Your task to perform on an android device: Go to Maps Image 0: 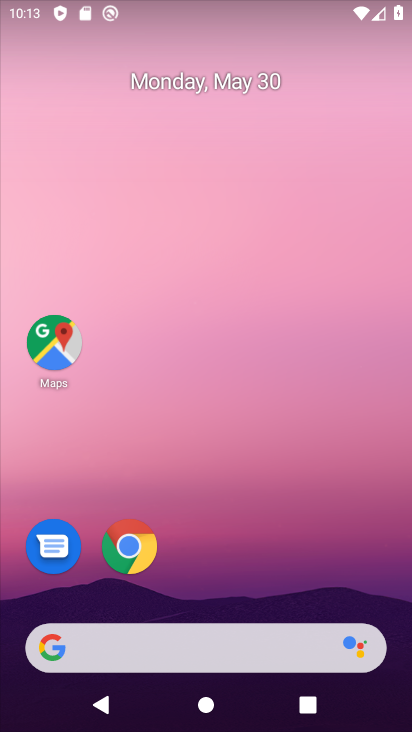
Step 0: click (52, 340)
Your task to perform on an android device: Go to Maps Image 1: 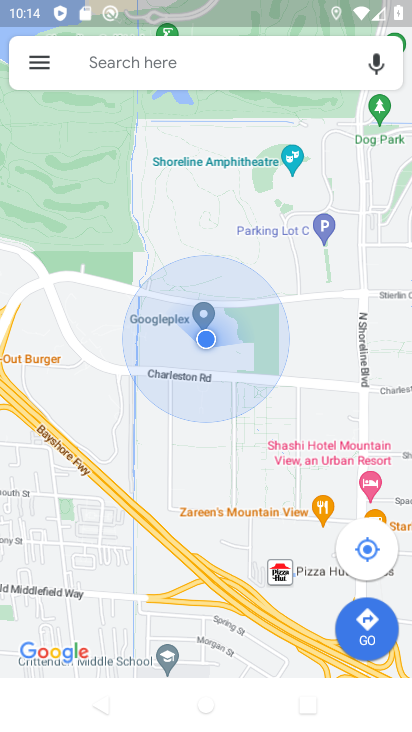
Step 1: press home button
Your task to perform on an android device: Go to Maps Image 2: 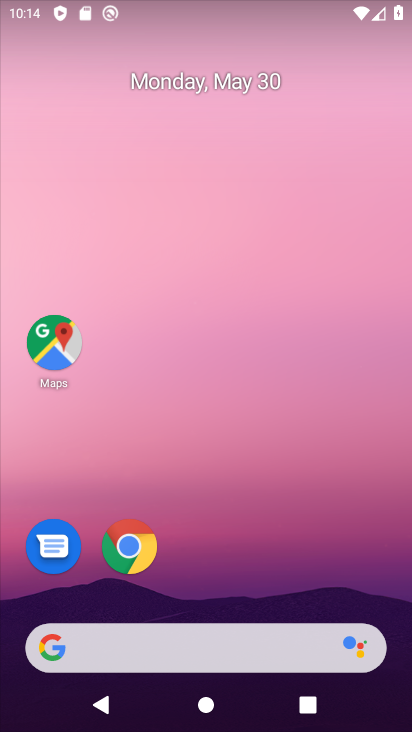
Step 2: click (52, 336)
Your task to perform on an android device: Go to Maps Image 3: 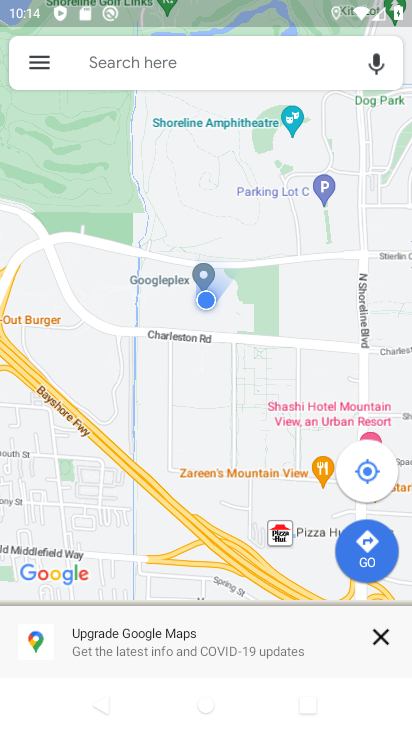
Step 3: drag from (217, 525) to (276, 336)
Your task to perform on an android device: Go to Maps Image 4: 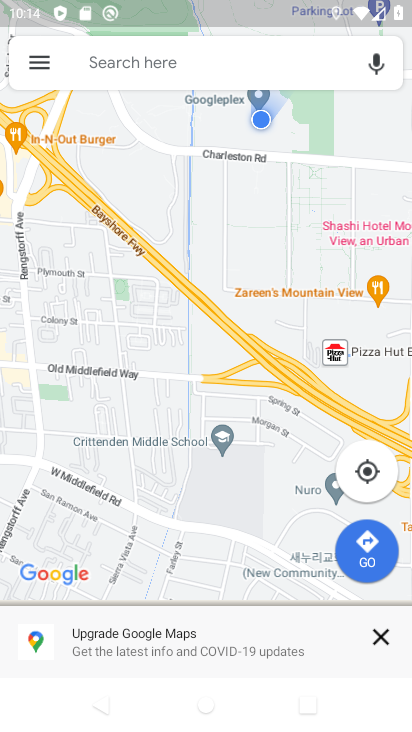
Step 4: click (30, 58)
Your task to perform on an android device: Go to Maps Image 5: 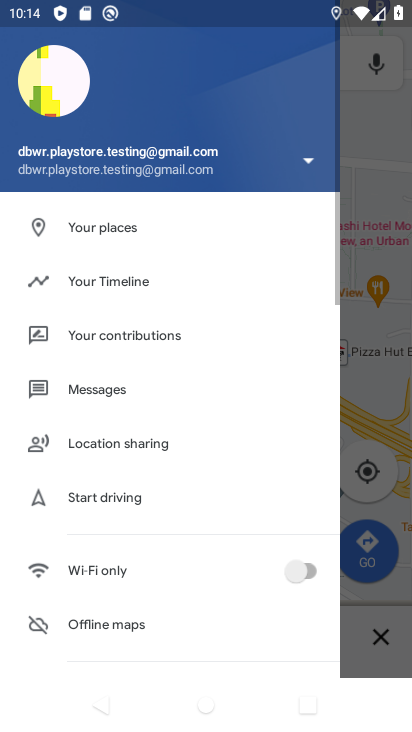
Step 5: task complete